Your task to perform on an android device: View the shopping cart on bestbuy.com. Image 0: 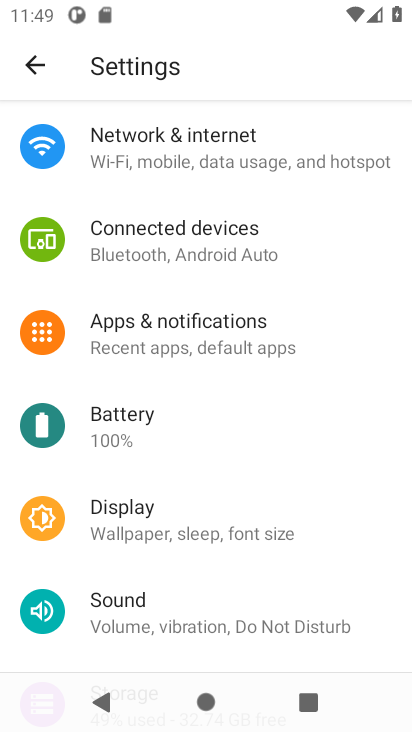
Step 0: press home button
Your task to perform on an android device: View the shopping cart on bestbuy.com. Image 1: 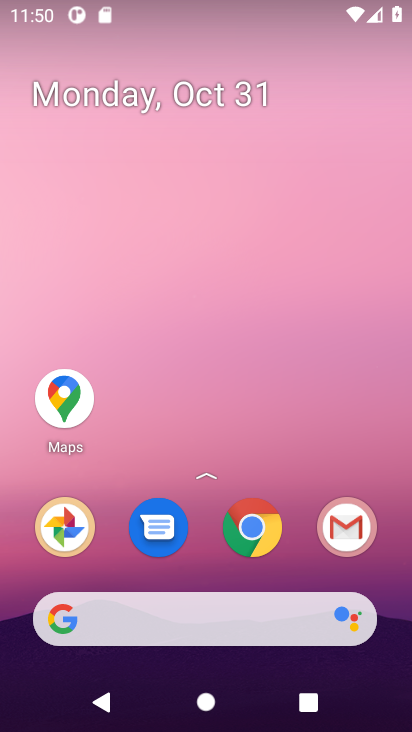
Step 1: click (251, 526)
Your task to perform on an android device: View the shopping cart on bestbuy.com. Image 2: 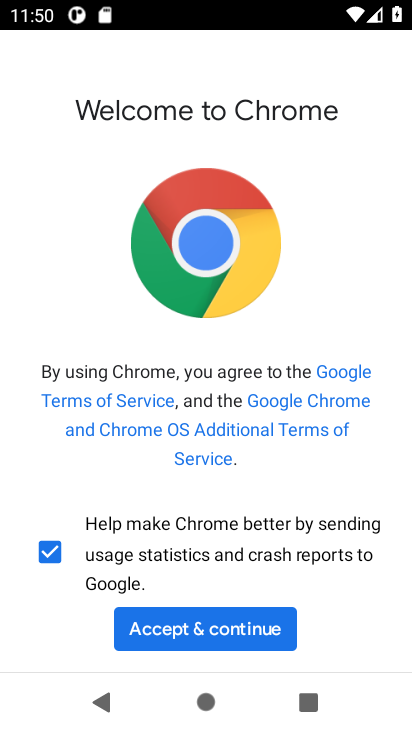
Step 2: click (213, 625)
Your task to perform on an android device: View the shopping cart on bestbuy.com. Image 3: 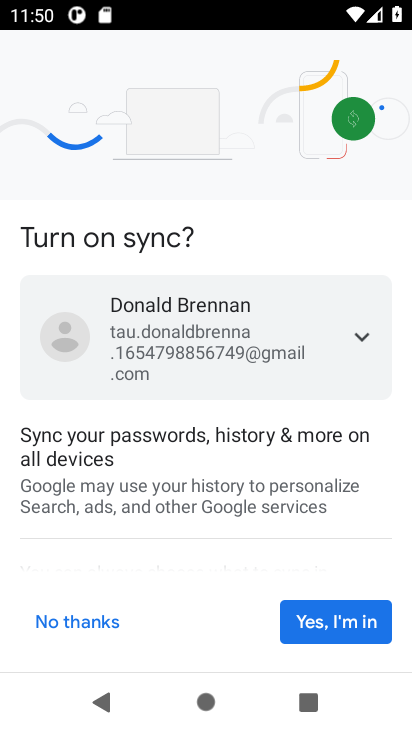
Step 3: click (339, 623)
Your task to perform on an android device: View the shopping cart on bestbuy.com. Image 4: 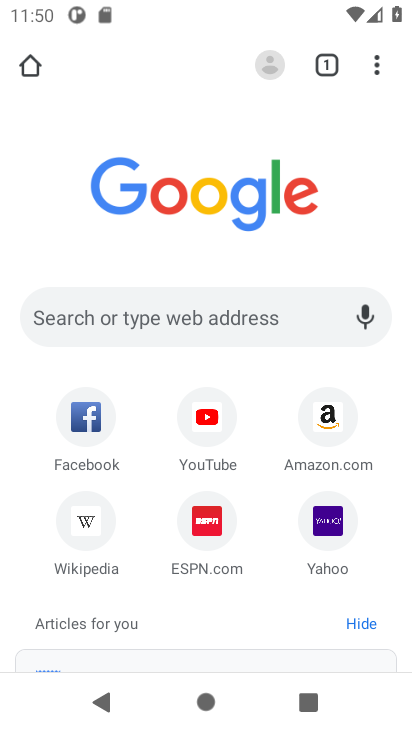
Step 4: click (155, 313)
Your task to perform on an android device: View the shopping cart on bestbuy.com. Image 5: 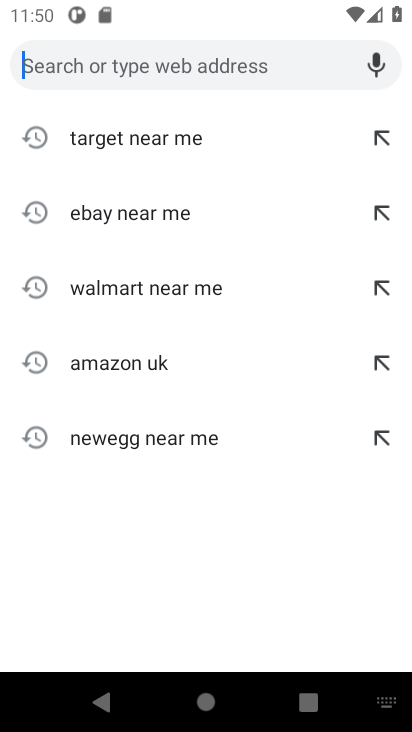
Step 5: type "bestbuy.com"
Your task to perform on an android device: View the shopping cart on bestbuy.com. Image 6: 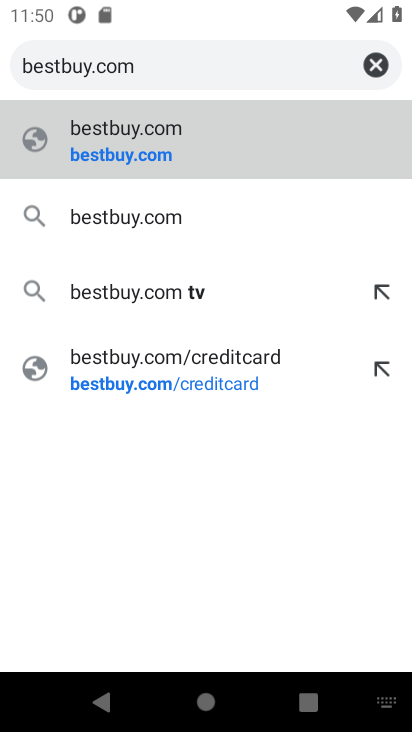
Step 6: click (128, 127)
Your task to perform on an android device: View the shopping cart on bestbuy.com. Image 7: 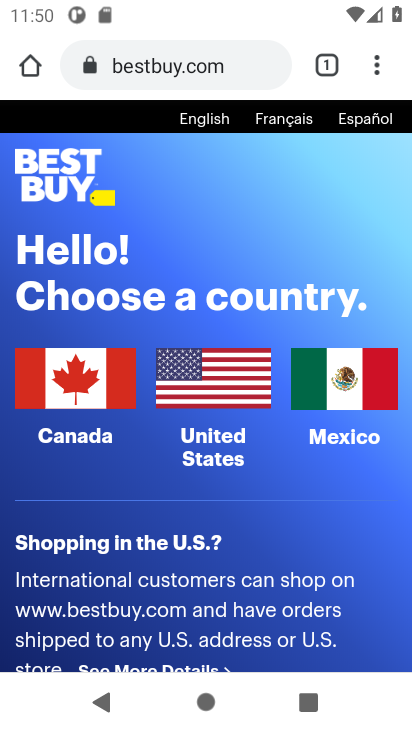
Step 7: click (212, 379)
Your task to perform on an android device: View the shopping cart on bestbuy.com. Image 8: 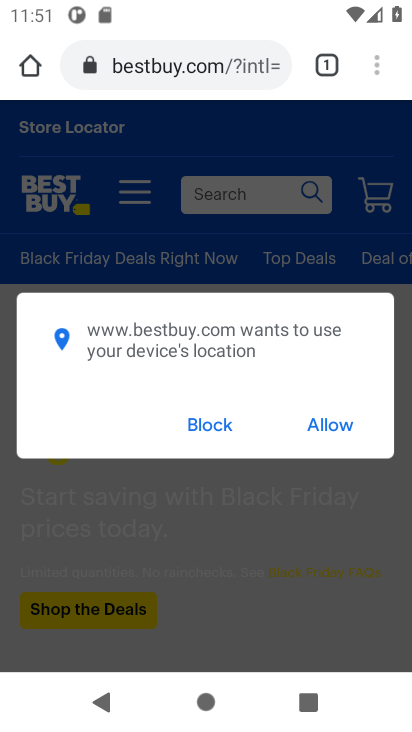
Step 8: click (335, 420)
Your task to perform on an android device: View the shopping cart on bestbuy.com. Image 9: 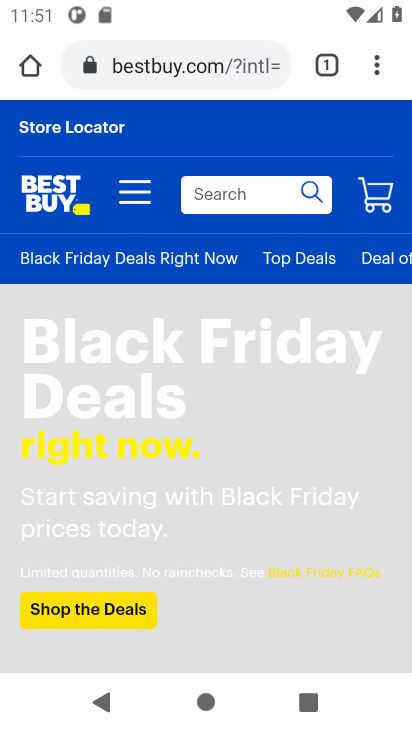
Step 9: click (373, 200)
Your task to perform on an android device: View the shopping cart on bestbuy.com. Image 10: 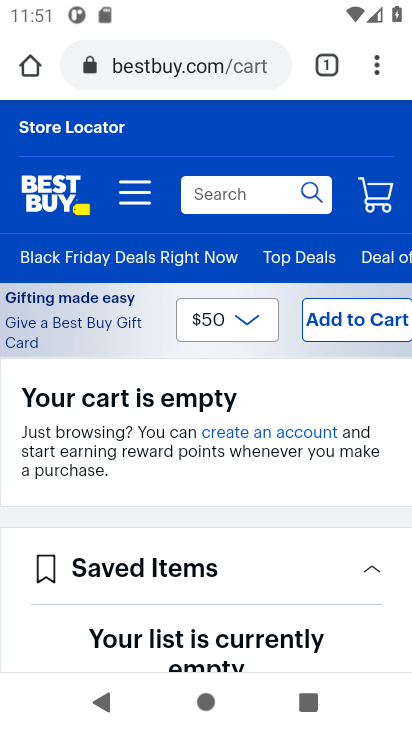
Step 10: task complete